Your task to perform on an android device: change the upload size in google photos Image 0: 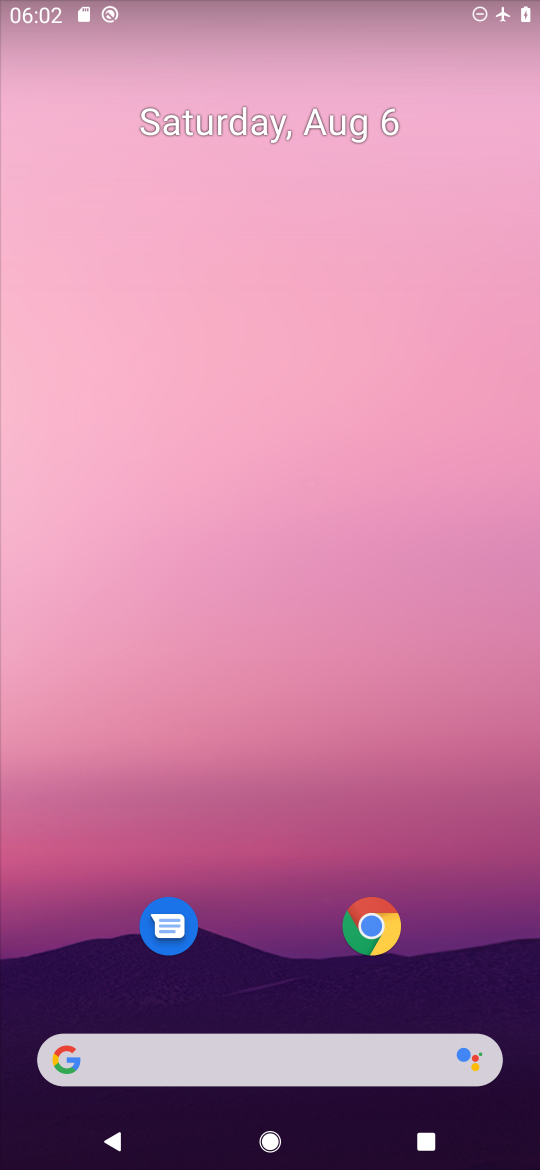
Step 0: drag from (280, 932) to (313, 298)
Your task to perform on an android device: change the upload size in google photos Image 1: 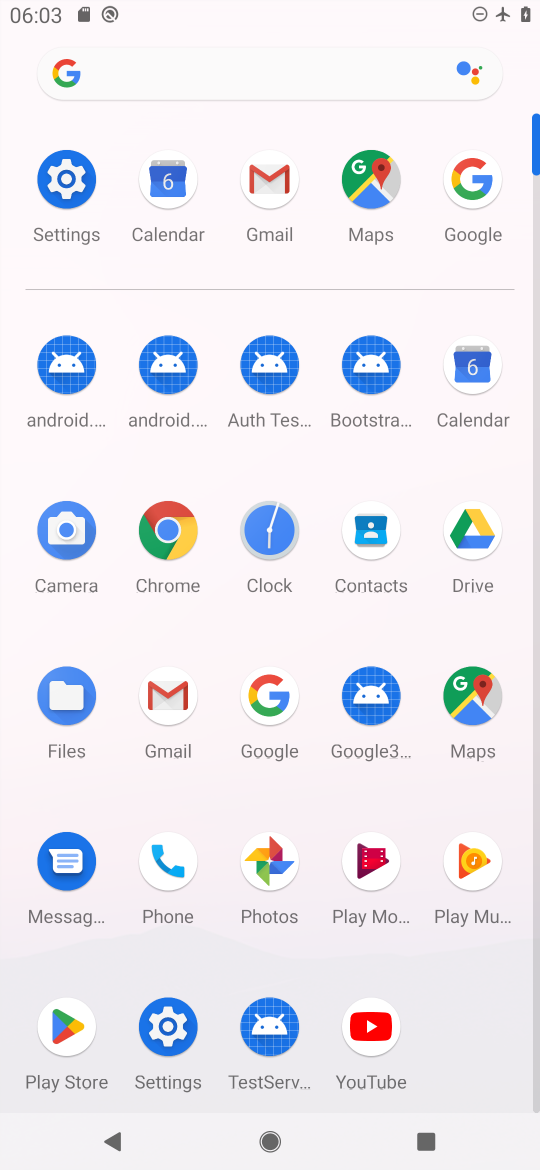
Step 1: click (279, 847)
Your task to perform on an android device: change the upload size in google photos Image 2: 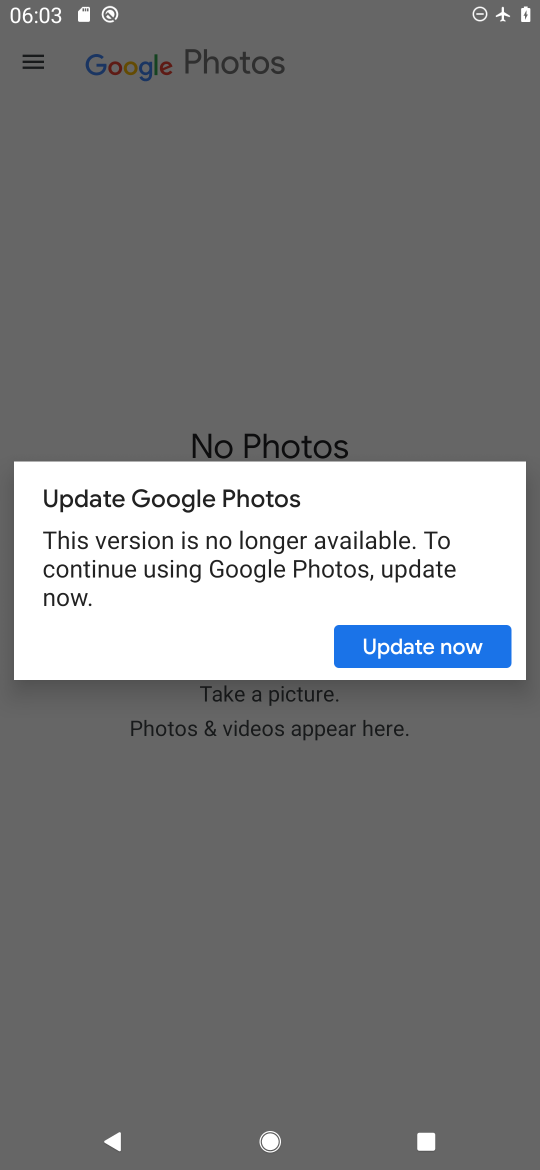
Step 2: click (411, 643)
Your task to perform on an android device: change the upload size in google photos Image 3: 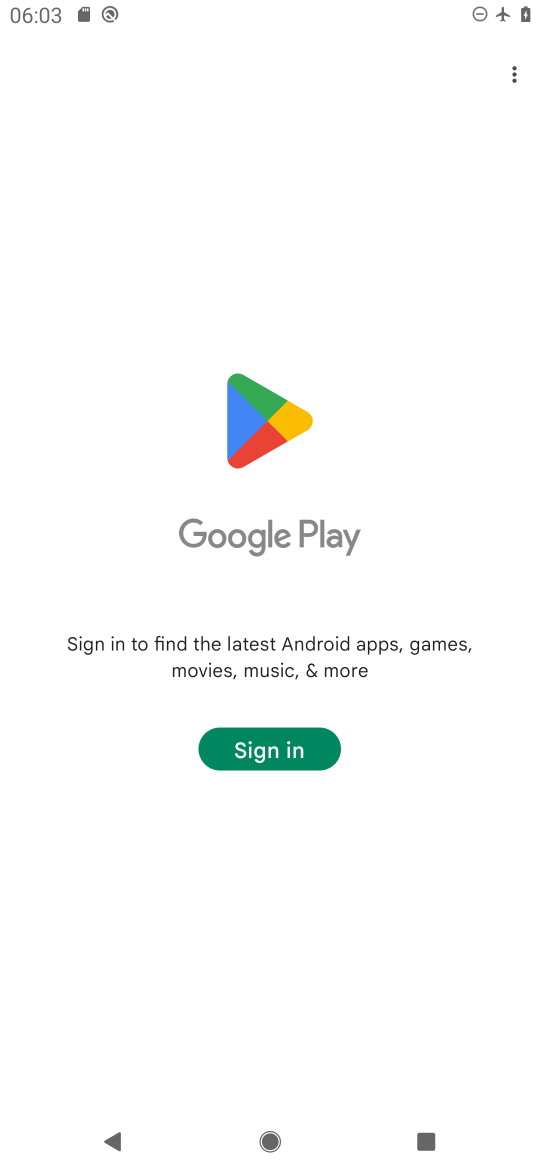
Step 3: task complete